Your task to perform on an android device: Do I have any events today? Image 0: 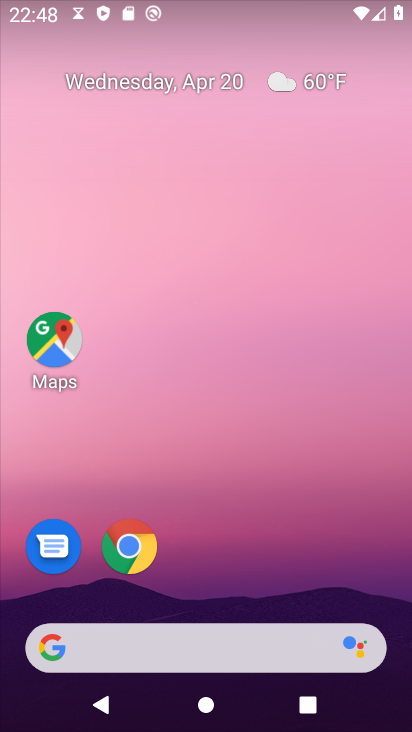
Step 0: drag from (216, 427) to (213, 3)
Your task to perform on an android device: Do I have any events today? Image 1: 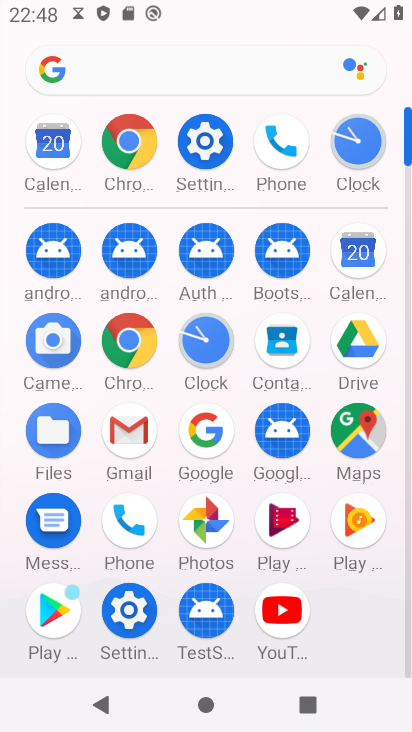
Step 1: click (355, 263)
Your task to perform on an android device: Do I have any events today? Image 2: 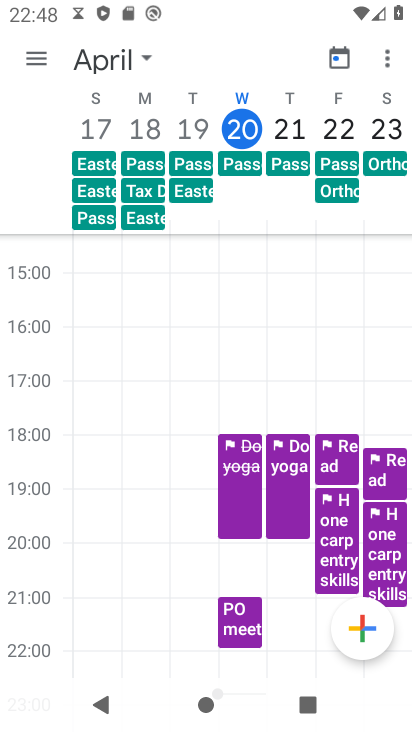
Step 2: click (35, 58)
Your task to perform on an android device: Do I have any events today? Image 3: 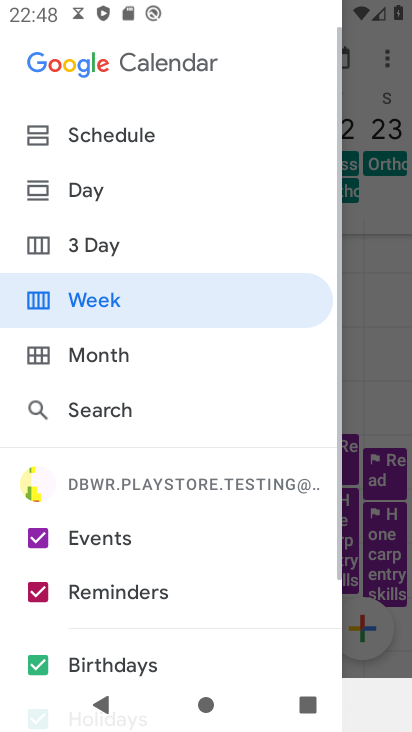
Step 3: click (93, 187)
Your task to perform on an android device: Do I have any events today? Image 4: 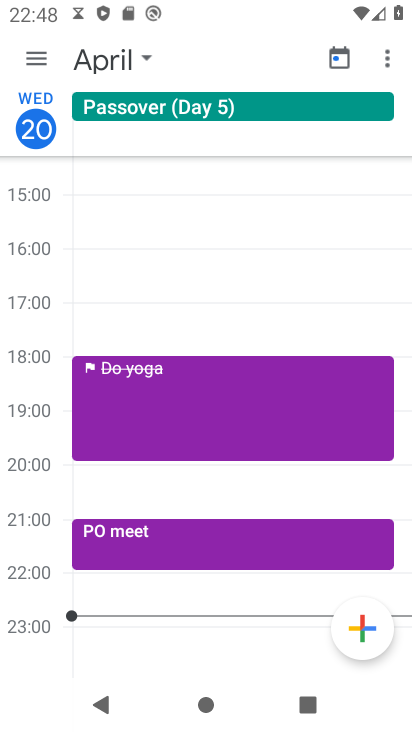
Step 4: click (136, 56)
Your task to perform on an android device: Do I have any events today? Image 5: 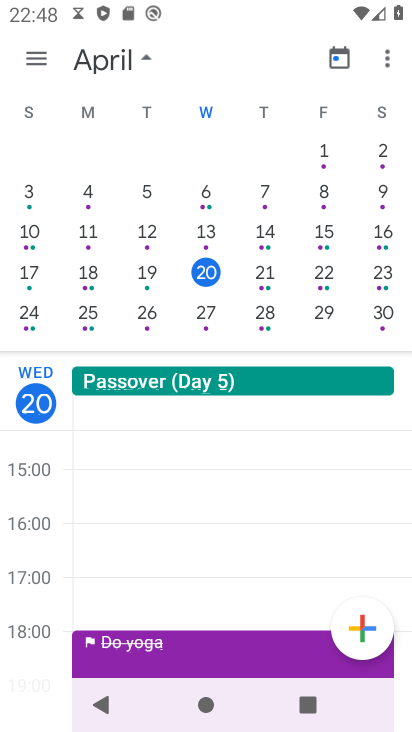
Step 5: click (139, 53)
Your task to perform on an android device: Do I have any events today? Image 6: 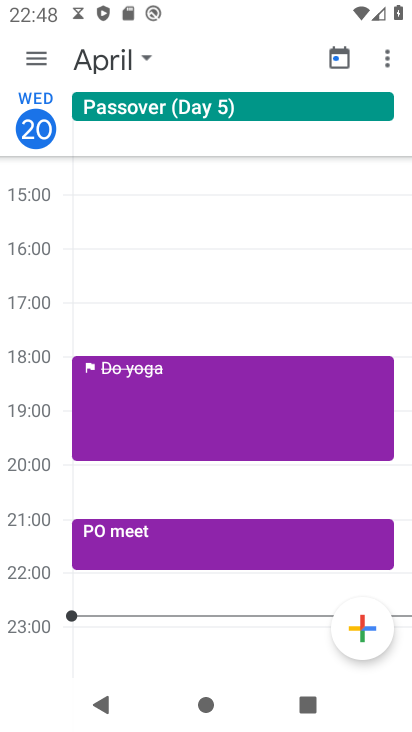
Step 6: task complete